Your task to perform on an android device: uninstall "Paramount+ | Peak Streaming" Image 0: 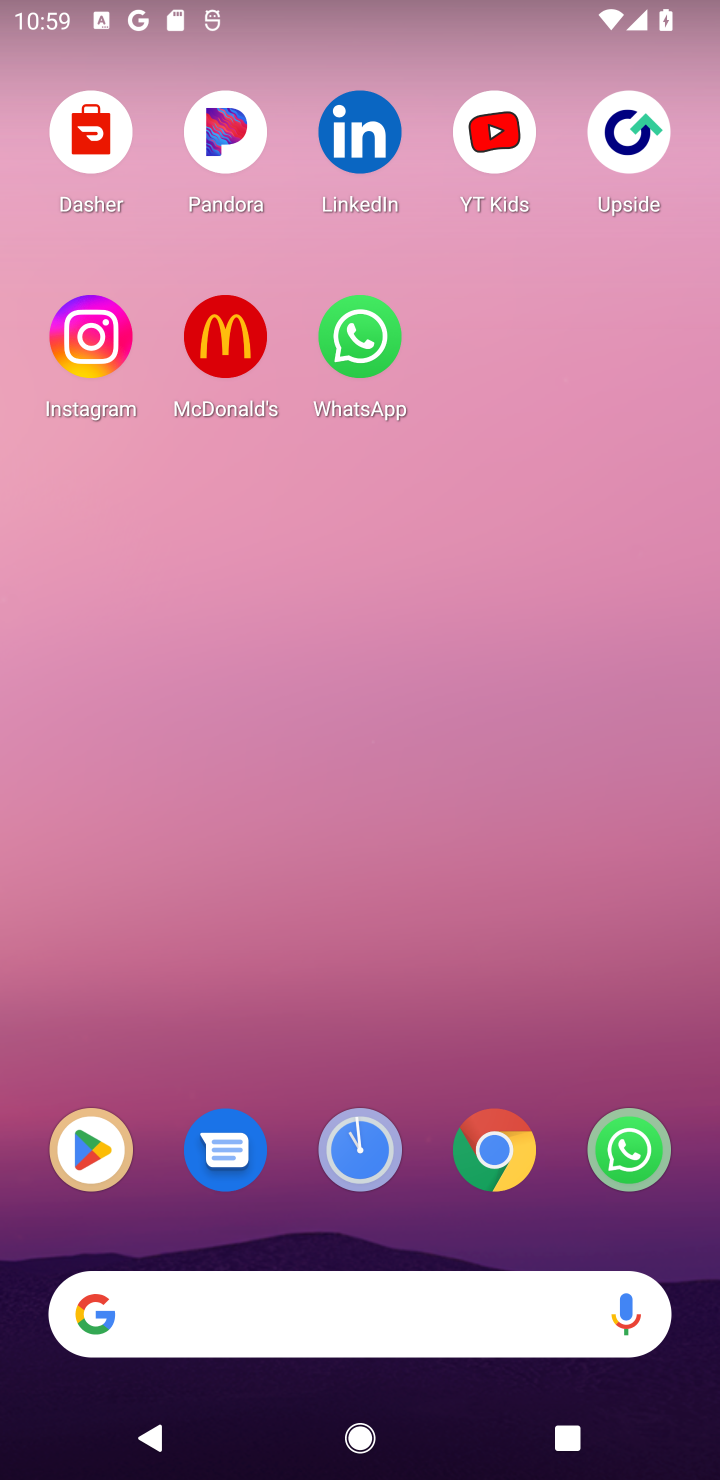
Step 0: click (87, 1143)
Your task to perform on an android device: uninstall "Paramount+ | Peak Streaming" Image 1: 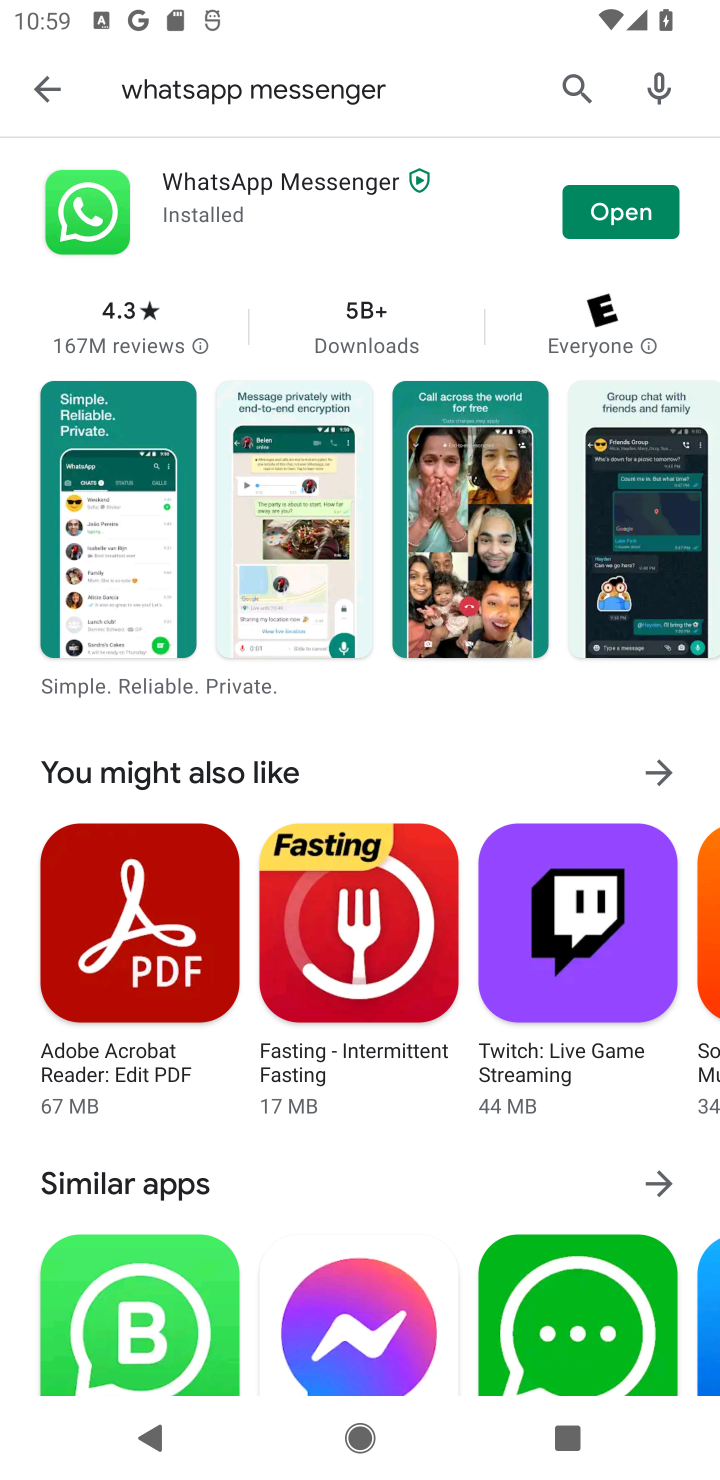
Step 1: click (564, 71)
Your task to perform on an android device: uninstall "Paramount+ | Peak Streaming" Image 2: 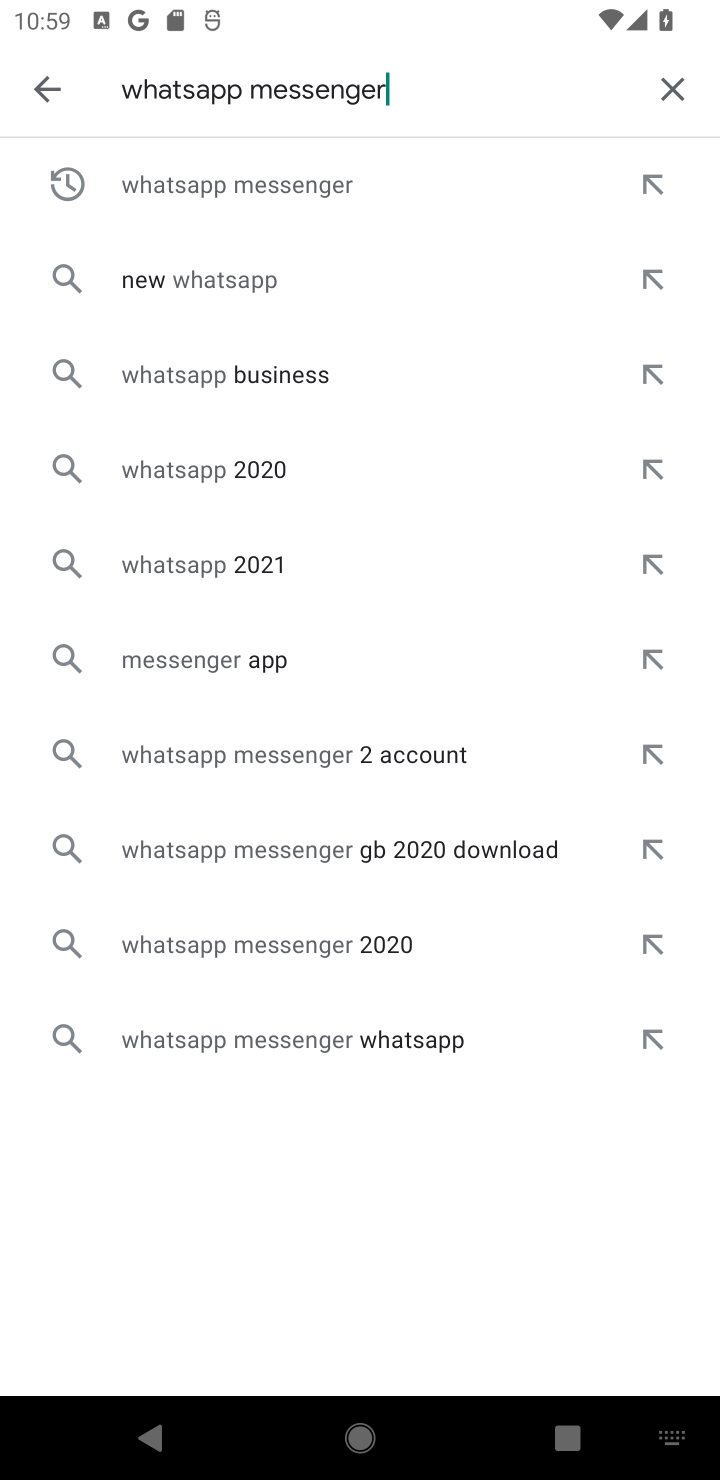
Step 2: click (687, 87)
Your task to perform on an android device: uninstall "Paramount+ | Peak Streaming" Image 3: 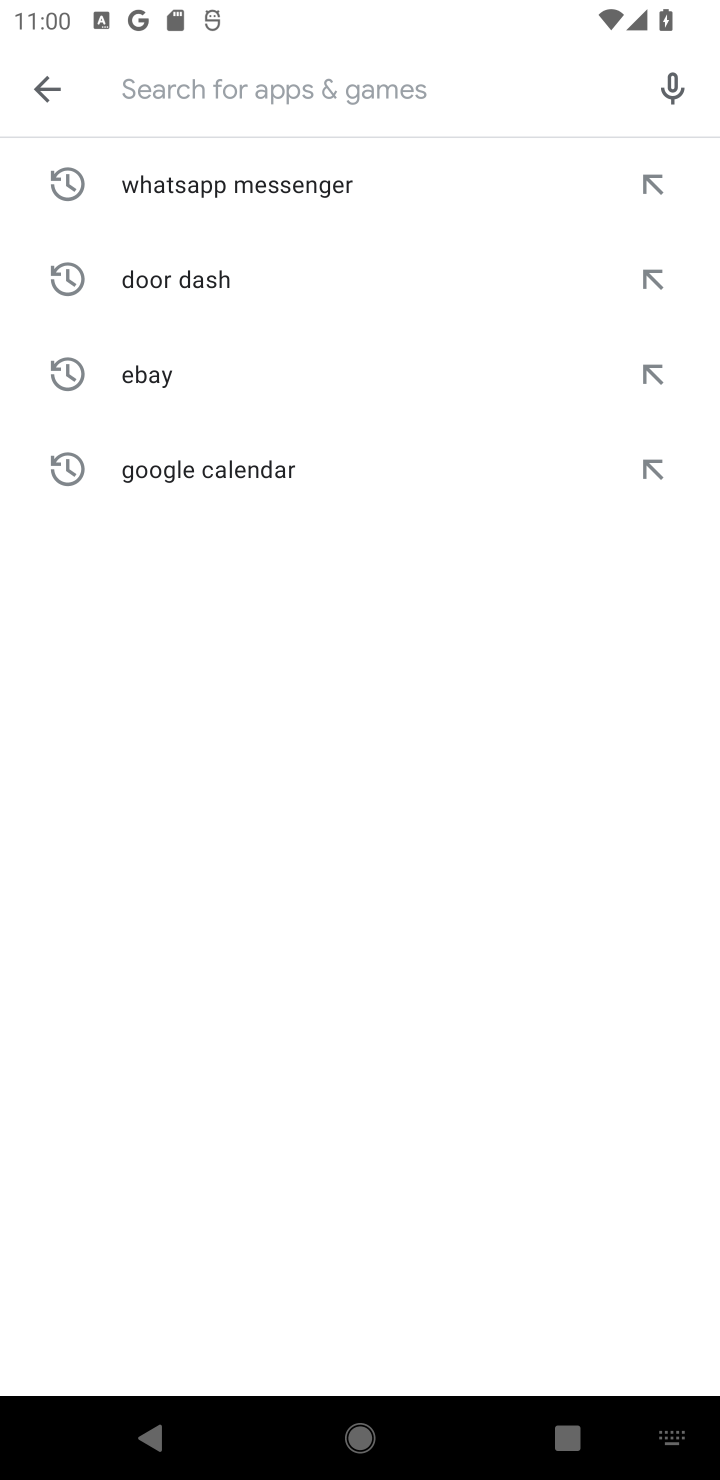
Step 3: click (366, 95)
Your task to perform on an android device: uninstall "Paramount+ | Peak Streaming" Image 4: 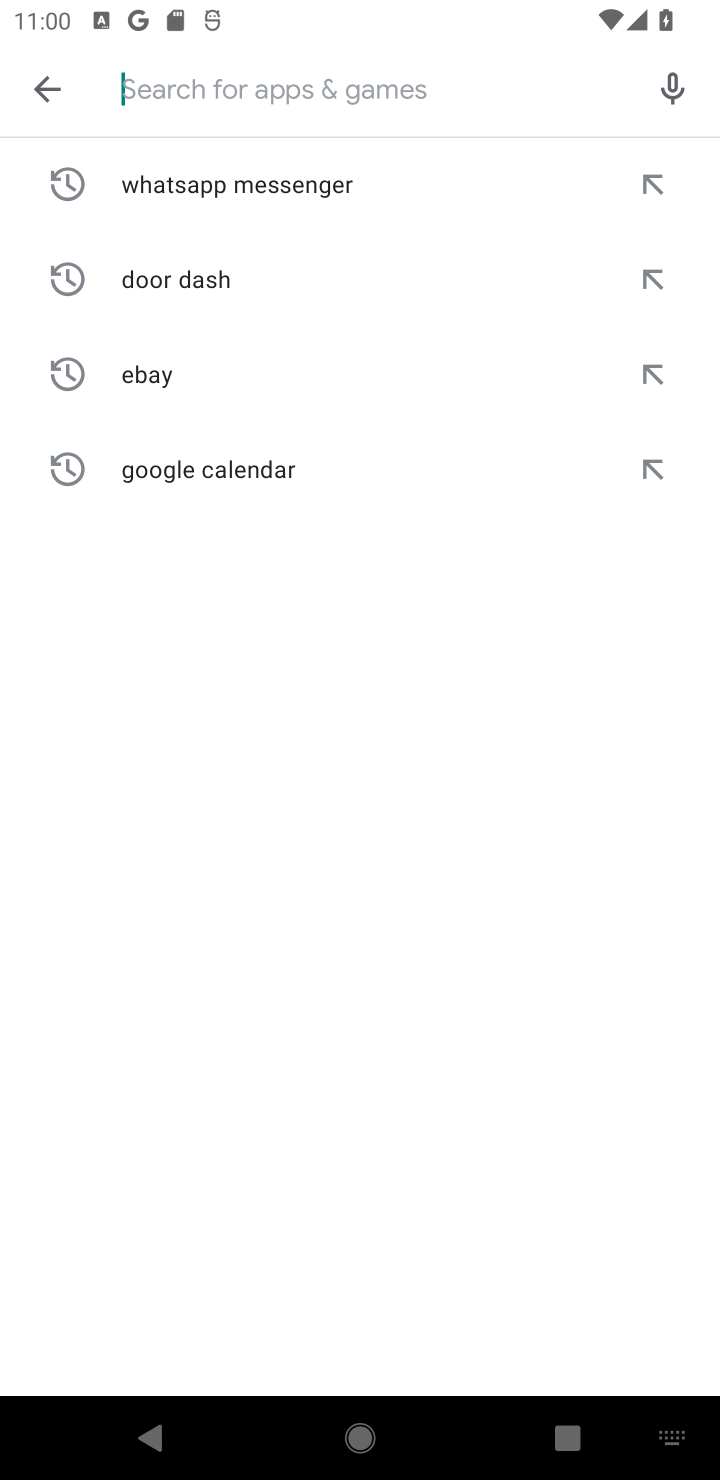
Step 4: type "paramount"
Your task to perform on an android device: uninstall "Paramount+ | Peak Streaming" Image 5: 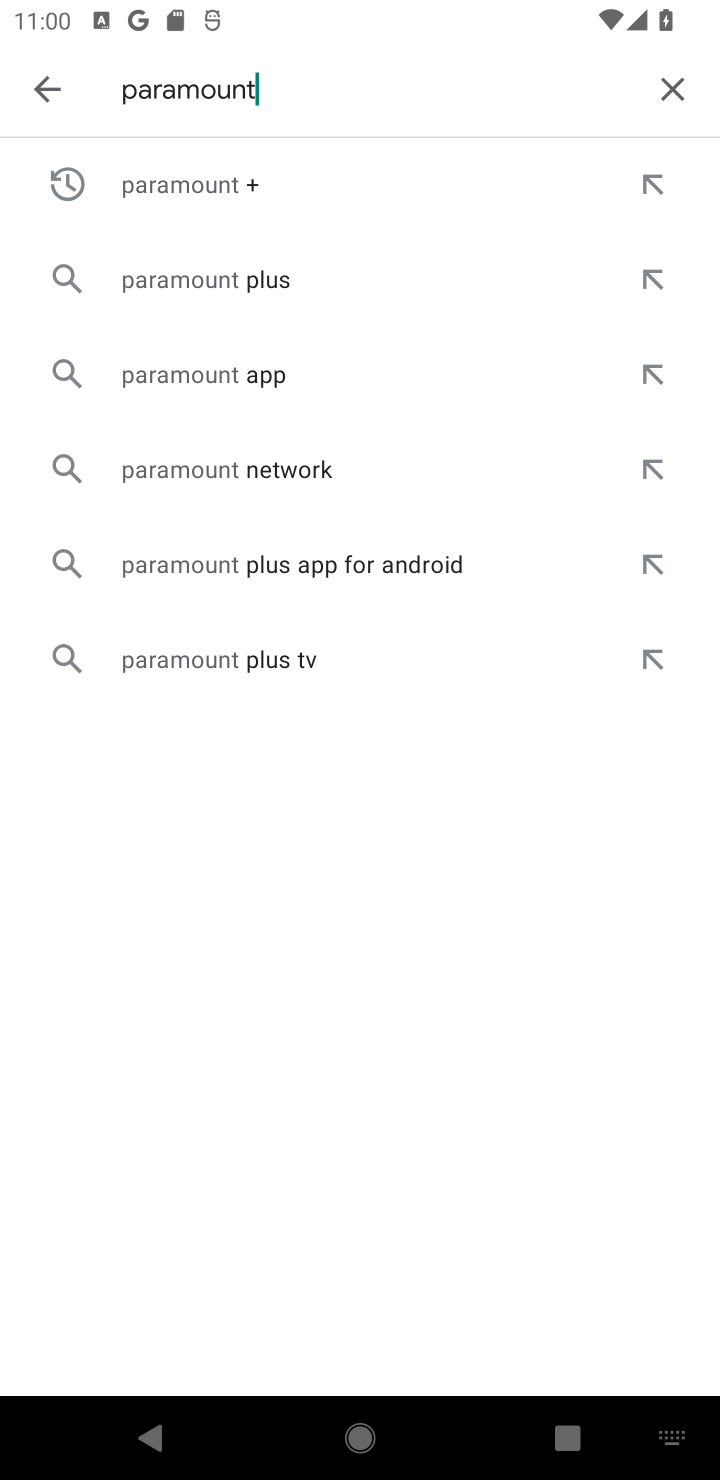
Step 5: click (245, 174)
Your task to perform on an android device: uninstall "Paramount+ | Peak Streaming" Image 6: 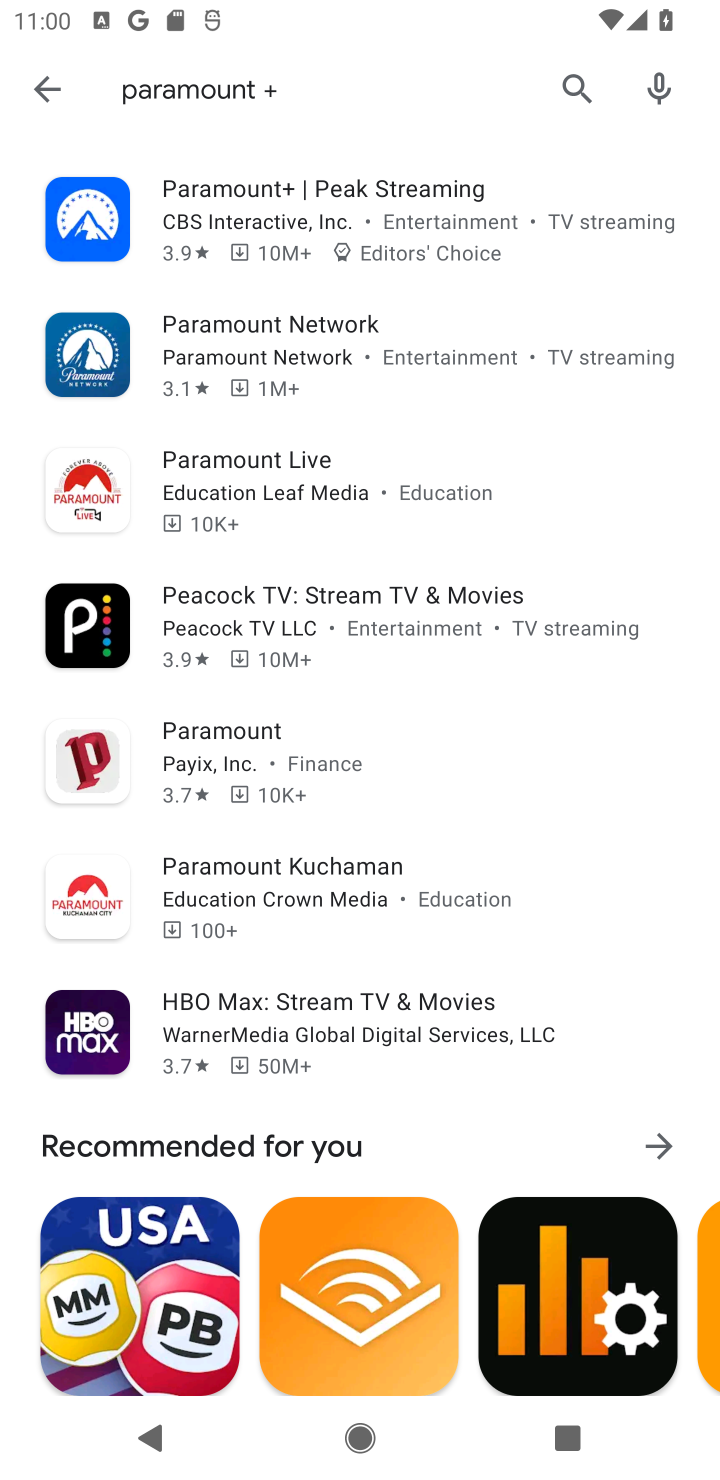
Step 6: click (322, 197)
Your task to perform on an android device: uninstall "Paramount+ | Peak Streaming" Image 7: 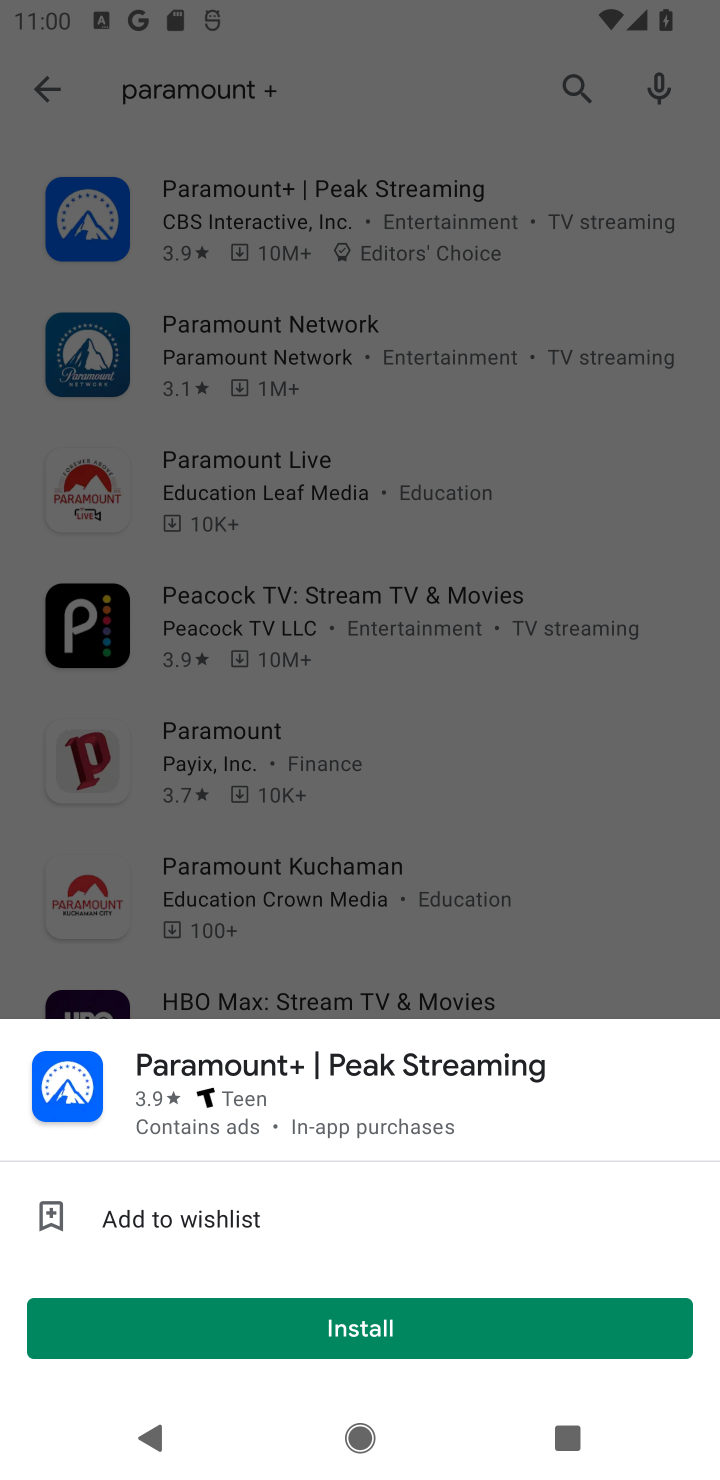
Step 7: task complete